Your task to perform on an android device: Open Yahoo.com Image 0: 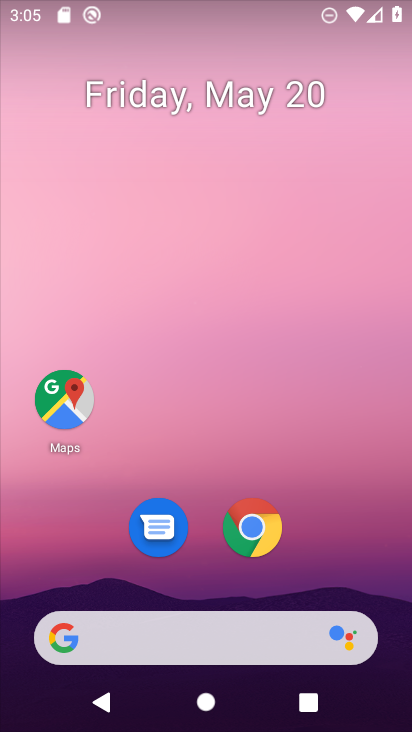
Step 0: click (248, 526)
Your task to perform on an android device: Open Yahoo.com Image 1: 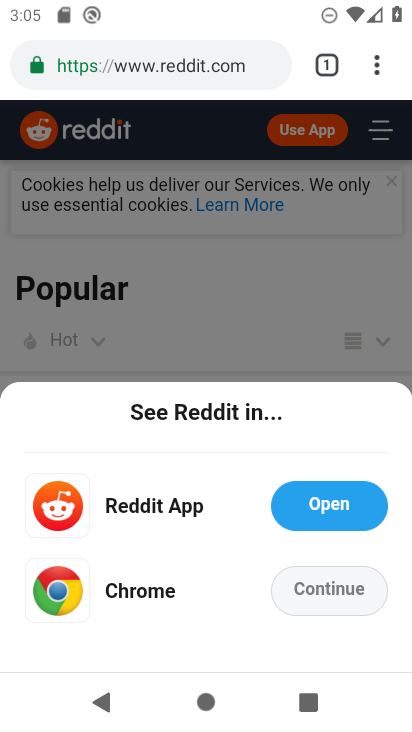
Step 1: click (321, 63)
Your task to perform on an android device: Open Yahoo.com Image 2: 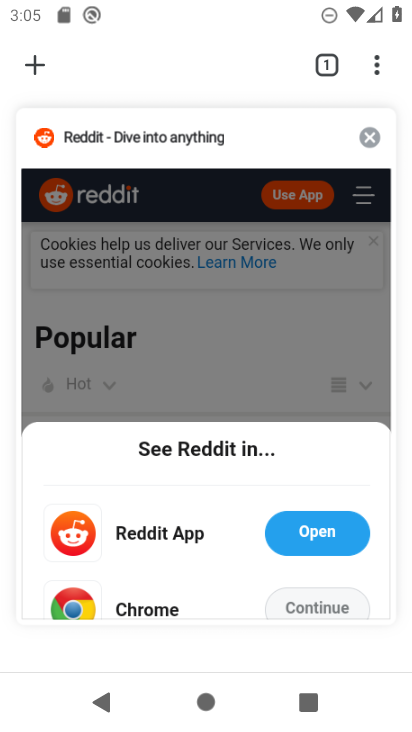
Step 2: click (40, 58)
Your task to perform on an android device: Open Yahoo.com Image 3: 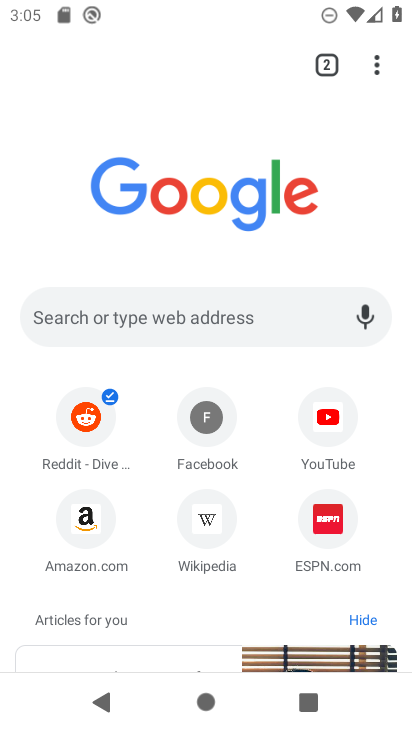
Step 3: click (141, 320)
Your task to perform on an android device: Open Yahoo.com Image 4: 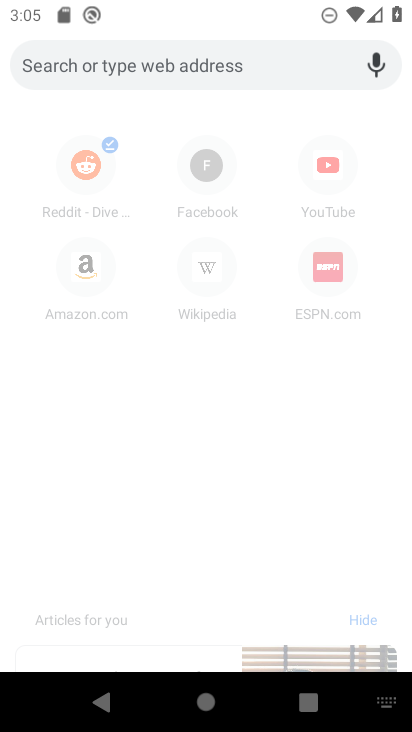
Step 4: type "yahoo"
Your task to perform on an android device: Open Yahoo.com Image 5: 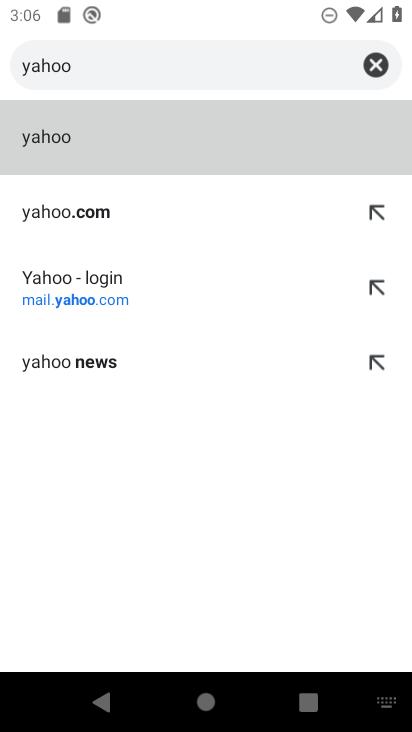
Step 5: click (86, 204)
Your task to perform on an android device: Open Yahoo.com Image 6: 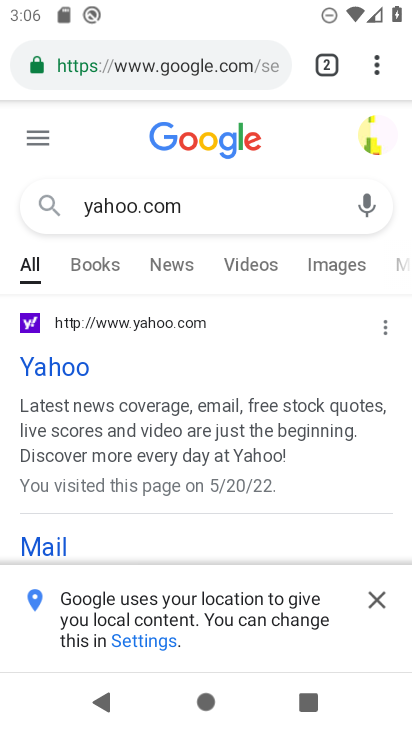
Step 6: task complete